Your task to perform on an android device: Open settings Image 0: 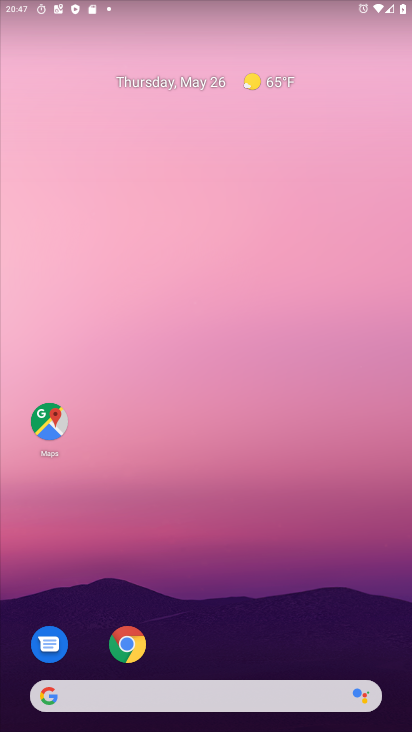
Step 0: drag from (230, 574) to (330, 7)
Your task to perform on an android device: Open settings Image 1: 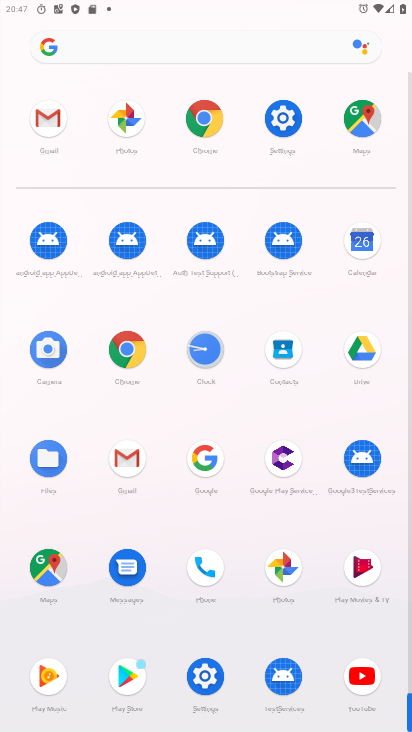
Step 1: click (278, 106)
Your task to perform on an android device: Open settings Image 2: 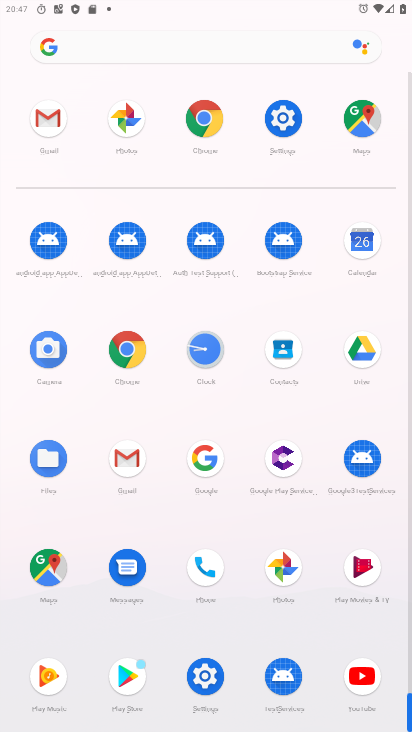
Step 2: click (278, 106)
Your task to perform on an android device: Open settings Image 3: 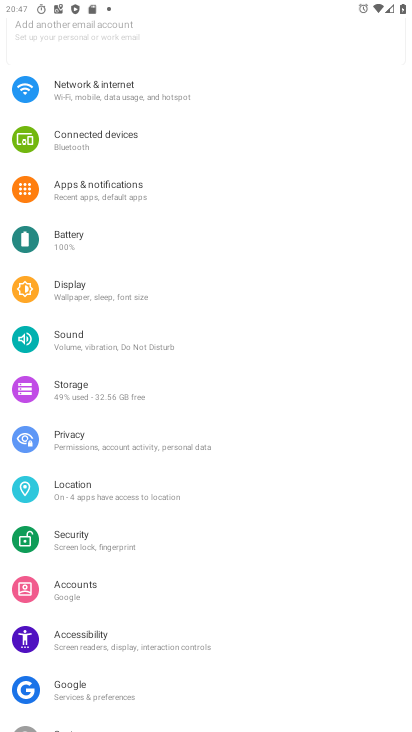
Step 3: task complete